Your task to perform on an android device: Open calendar and show me the third week of next month Image 0: 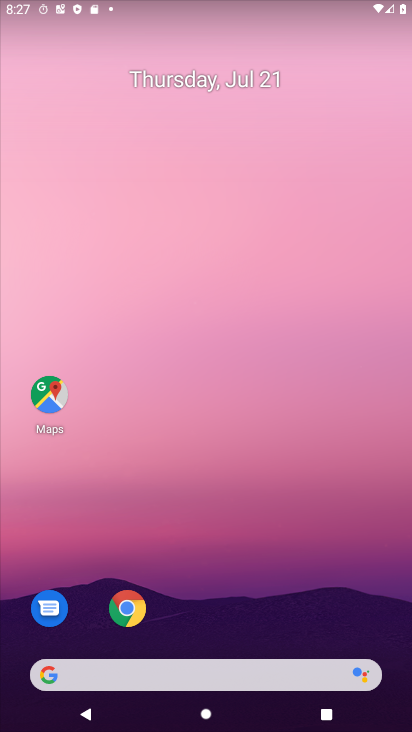
Step 0: press home button
Your task to perform on an android device: Open calendar and show me the third week of next month Image 1: 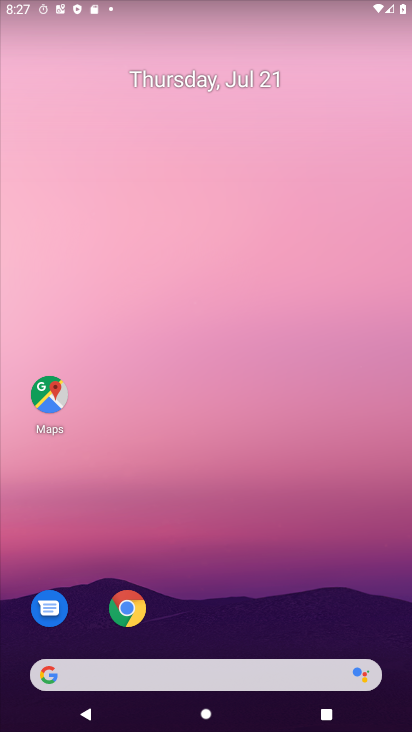
Step 1: drag from (202, 667) to (279, 221)
Your task to perform on an android device: Open calendar and show me the third week of next month Image 2: 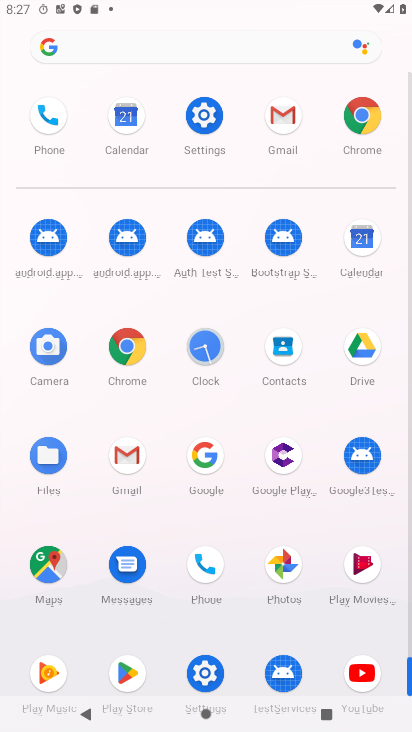
Step 2: click (378, 259)
Your task to perform on an android device: Open calendar and show me the third week of next month Image 3: 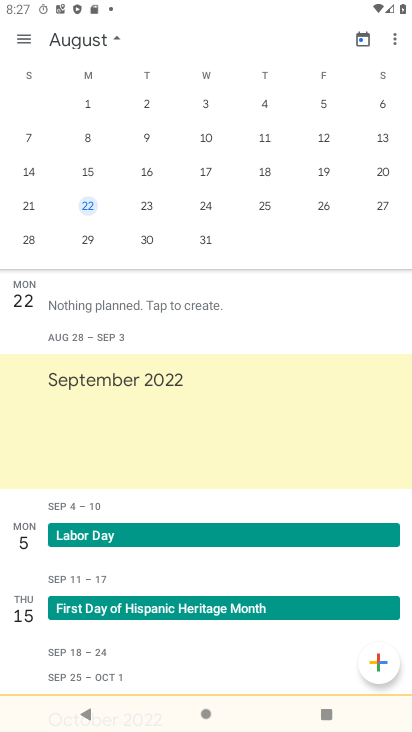
Step 3: click (87, 168)
Your task to perform on an android device: Open calendar and show me the third week of next month Image 4: 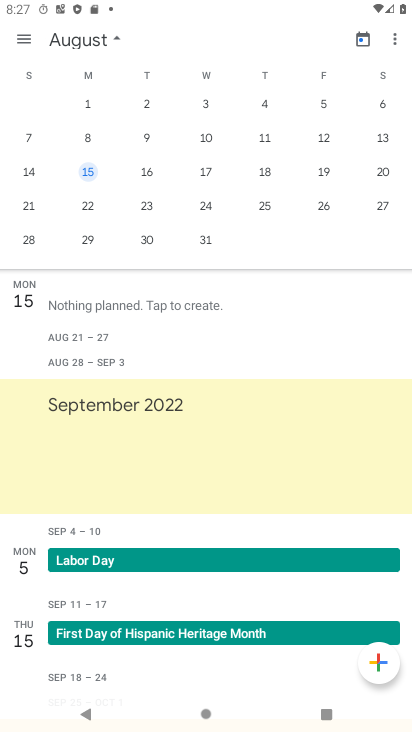
Step 4: task complete